Your task to perform on an android device: What's the news in theFalkland Islands? Image 0: 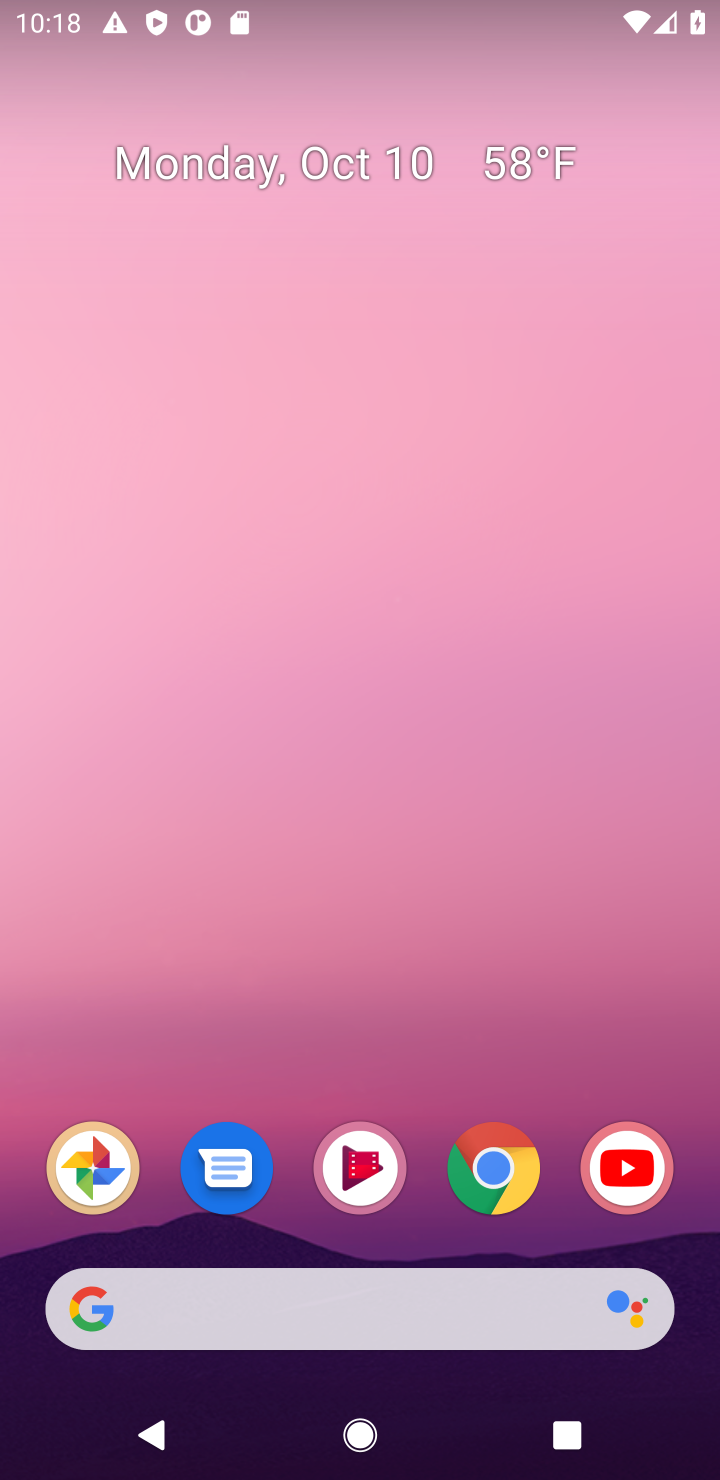
Step 0: click (270, 1309)
Your task to perform on an android device: What's the news in theFalkland Islands? Image 1: 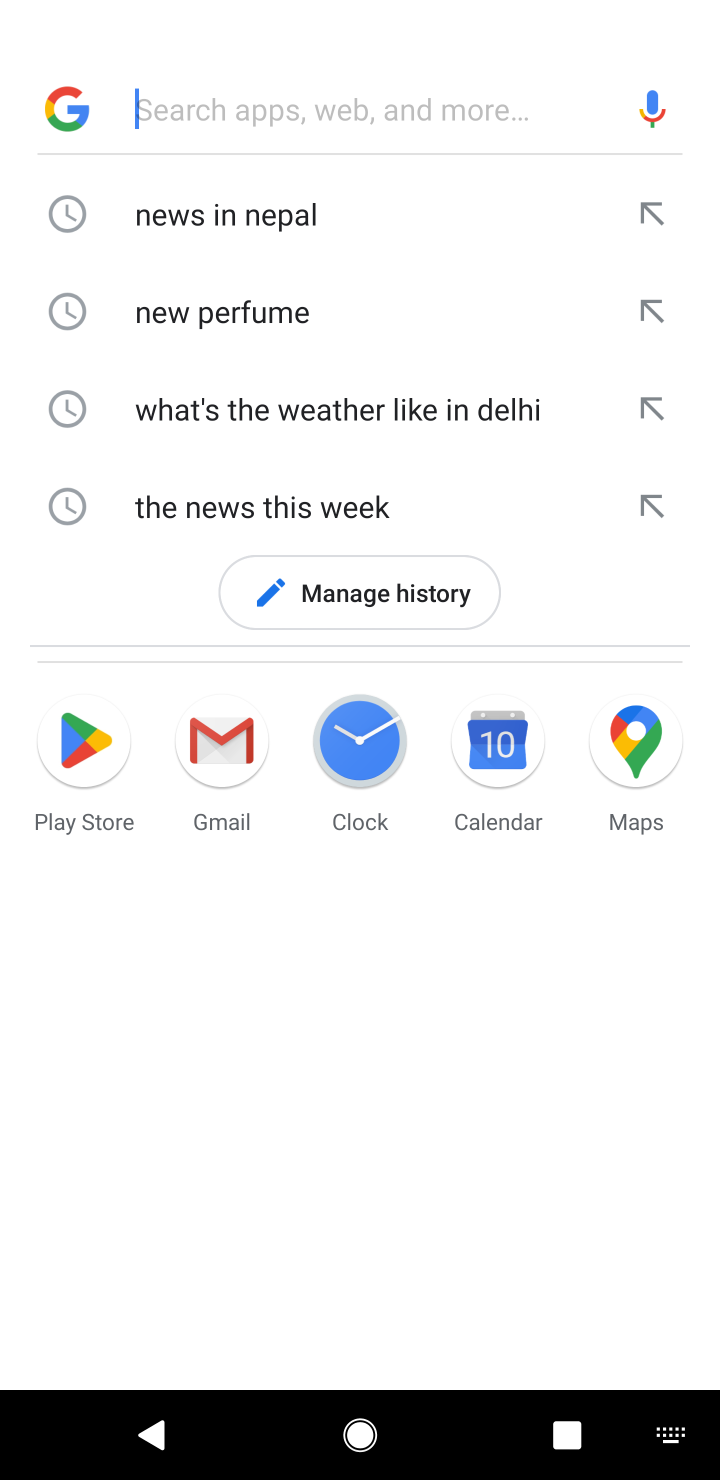
Step 1: type "news in theFalkland Islands"
Your task to perform on an android device: What's the news in theFalkland Islands? Image 2: 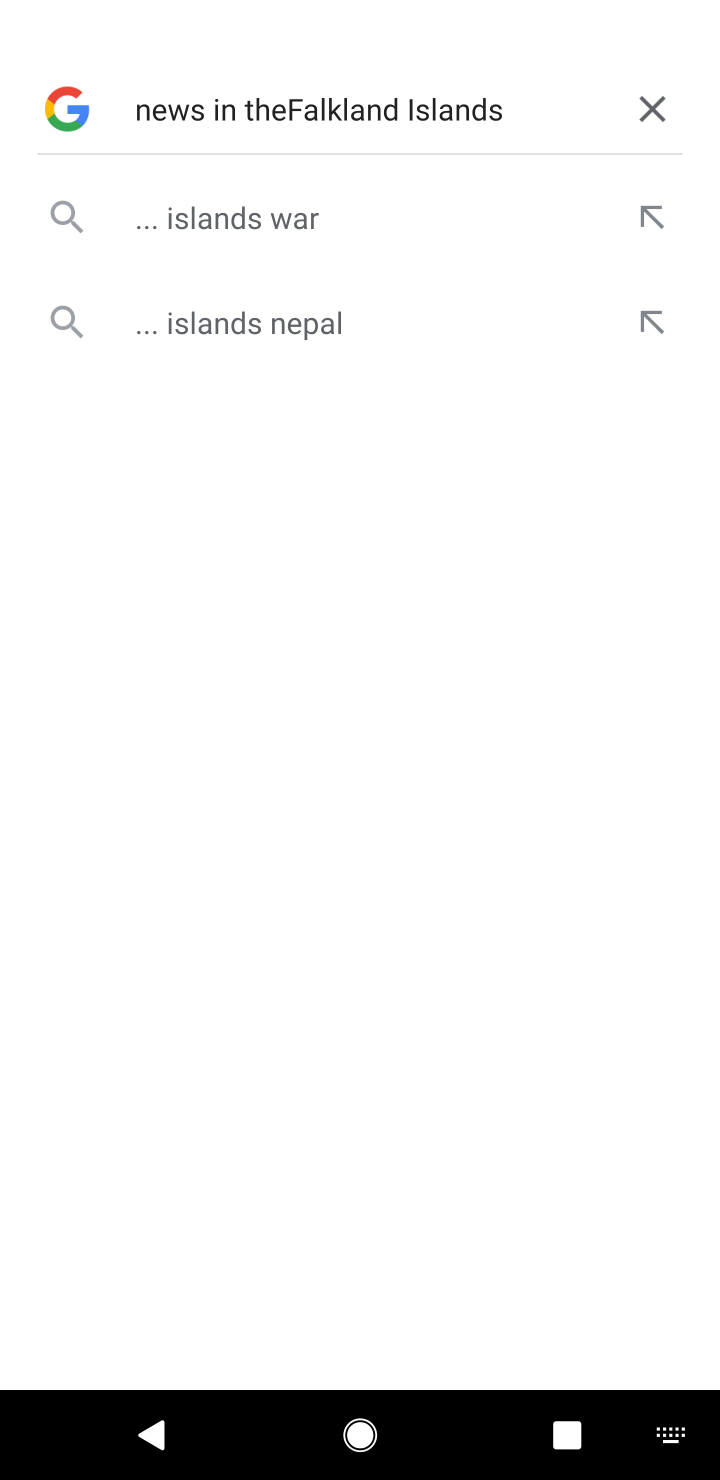
Step 2: type ""
Your task to perform on an android device: What's the news in theFalkland Islands? Image 3: 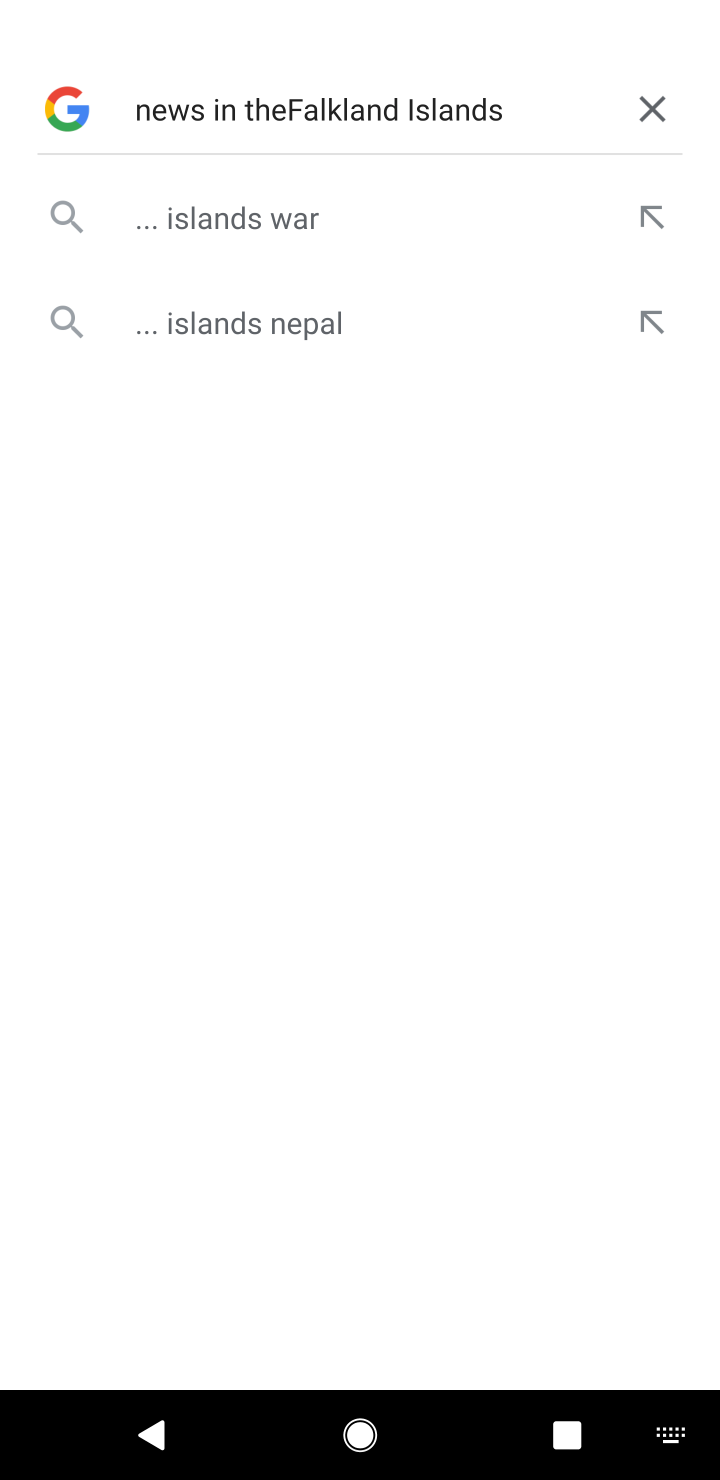
Step 3: click (361, 223)
Your task to perform on an android device: What's the news in theFalkland Islands? Image 4: 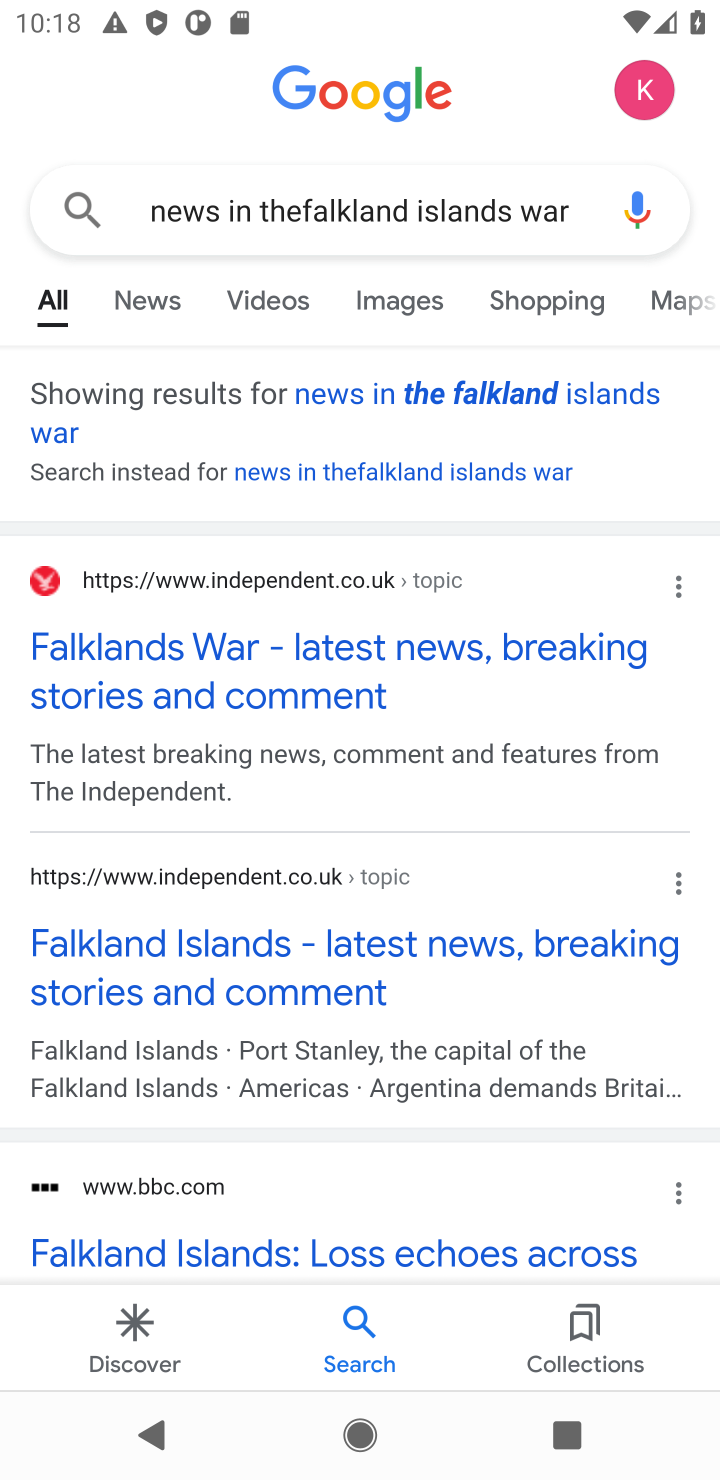
Step 4: click (152, 310)
Your task to perform on an android device: What's the news in theFalkland Islands? Image 5: 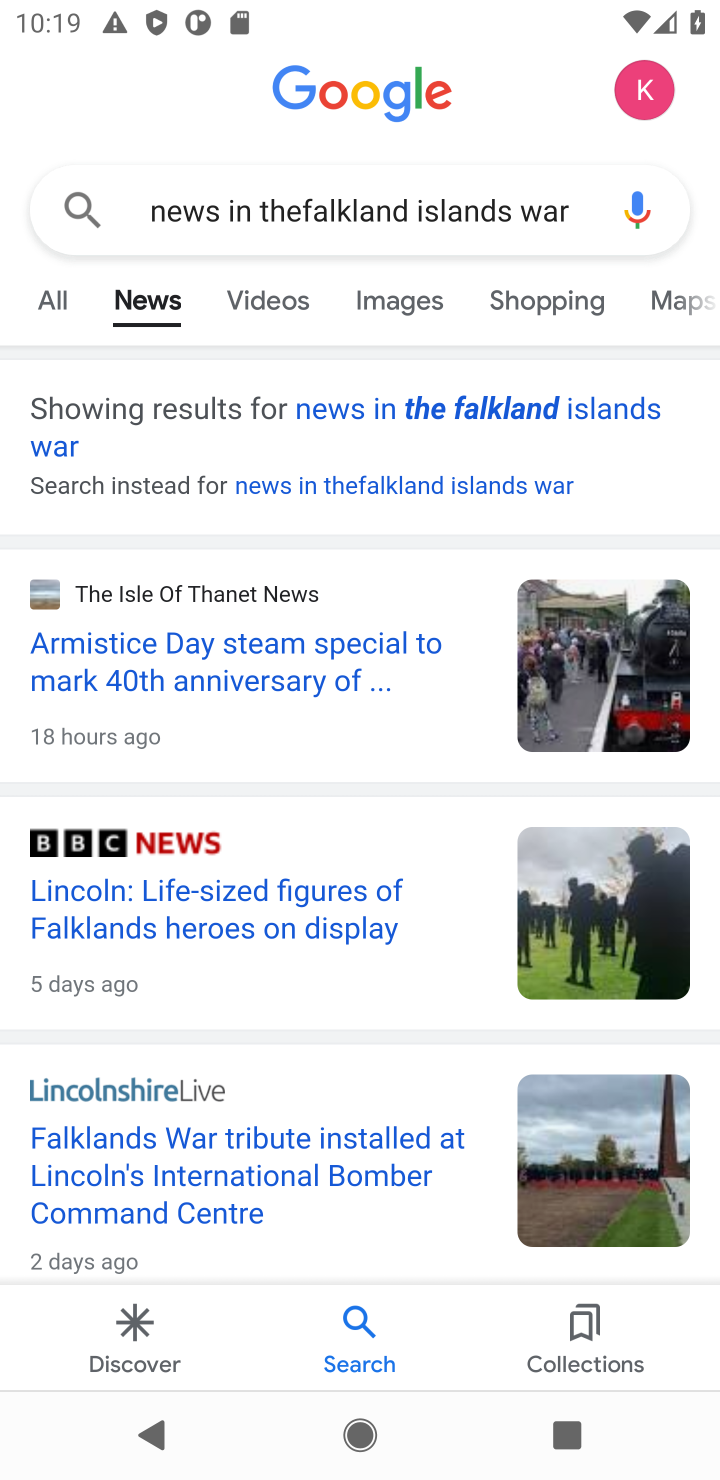
Step 5: task complete